Your task to perform on an android device: open a bookmark in the chrome app Image 0: 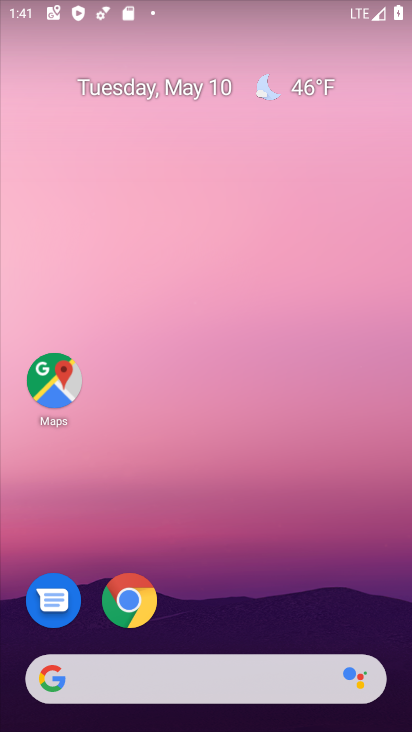
Step 0: press home button
Your task to perform on an android device: open a bookmark in the chrome app Image 1: 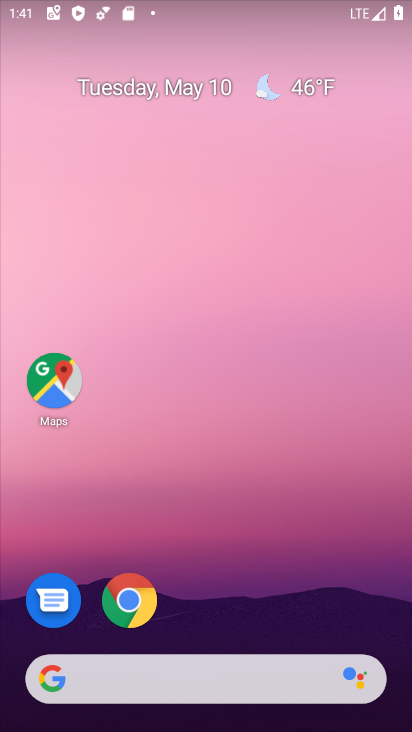
Step 1: click (126, 590)
Your task to perform on an android device: open a bookmark in the chrome app Image 2: 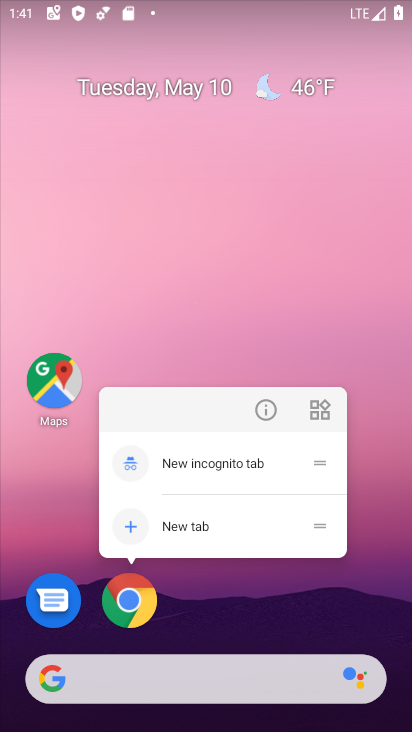
Step 2: click (138, 601)
Your task to perform on an android device: open a bookmark in the chrome app Image 3: 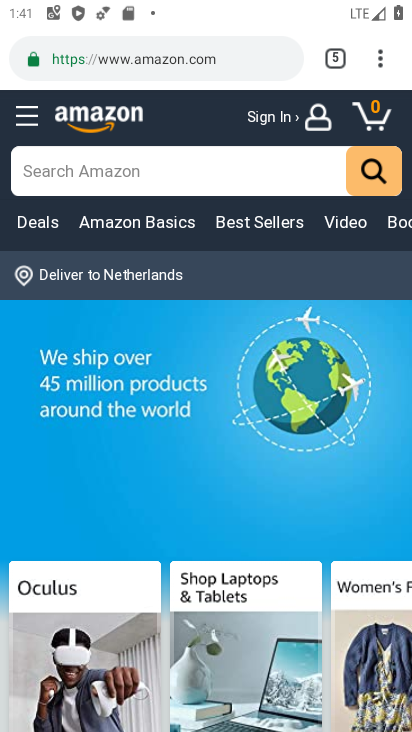
Step 3: task complete